Your task to perform on an android device: change the upload size in google photos Image 0: 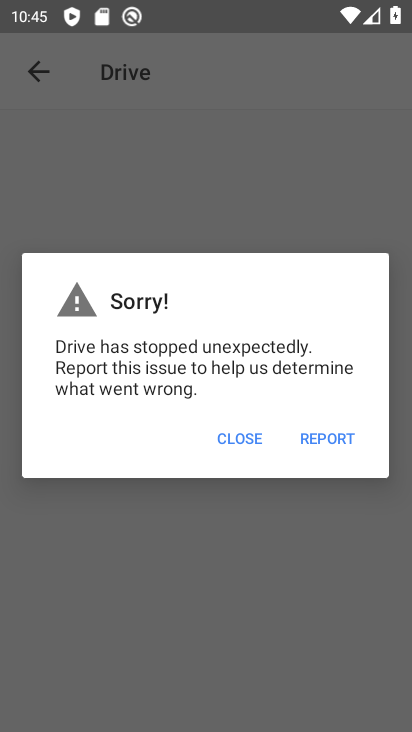
Step 0: press home button
Your task to perform on an android device: change the upload size in google photos Image 1: 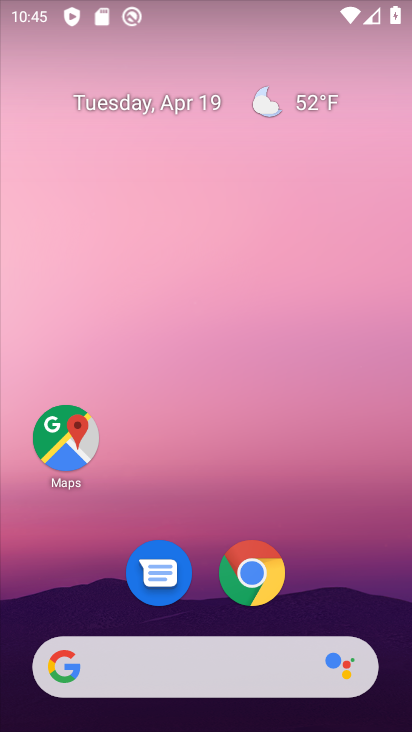
Step 1: drag from (212, 698) to (215, 27)
Your task to perform on an android device: change the upload size in google photos Image 2: 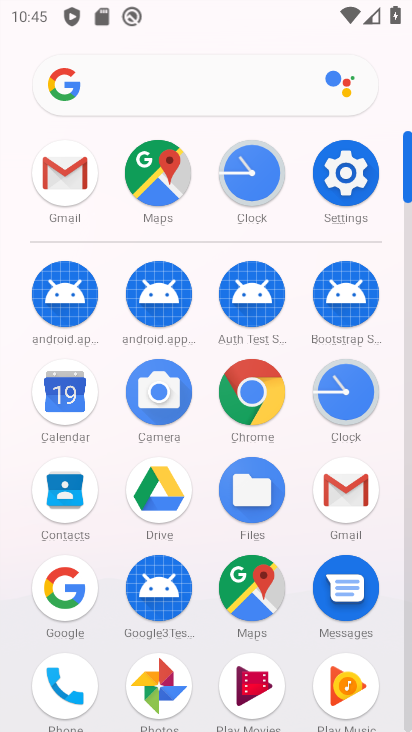
Step 2: click (159, 681)
Your task to perform on an android device: change the upload size in google photos Image 3: 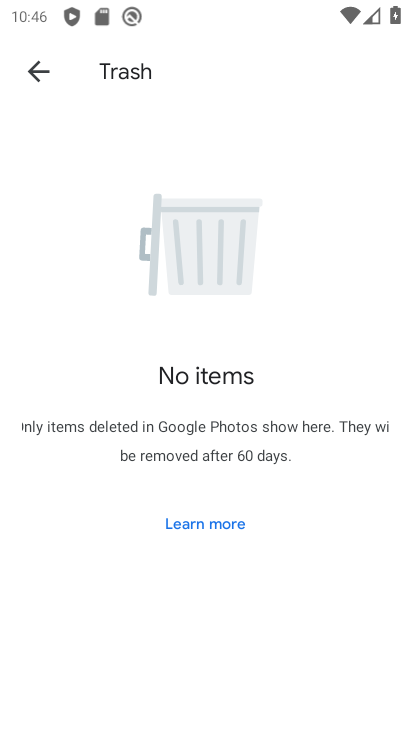
Step 3: click (35, 68)
Your task to perform on an android device: change the upload size in google photos Image 4: 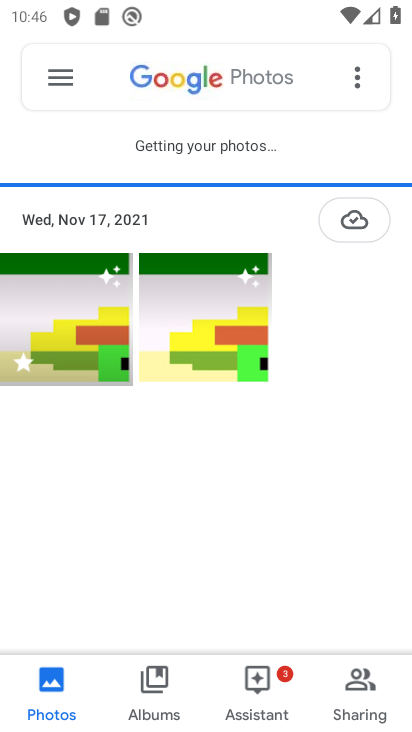
Step 4: click (56, 82)
Your task to perform on an android device: change the upload size in google photos Image 5: 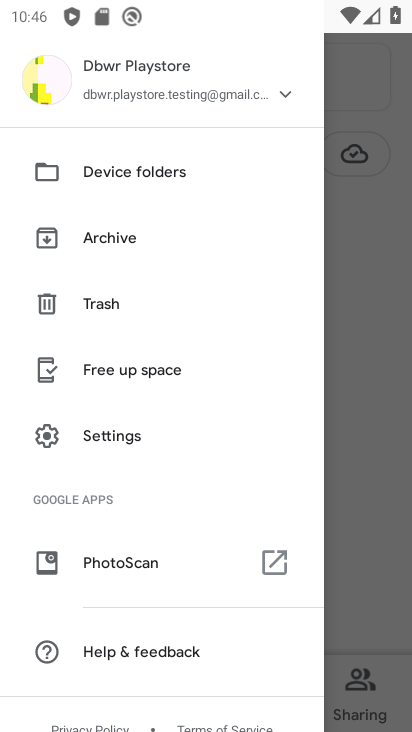
Step 5: click (119, 432)
Your task to perform on an android device: change the upload size in google photos Image 6: 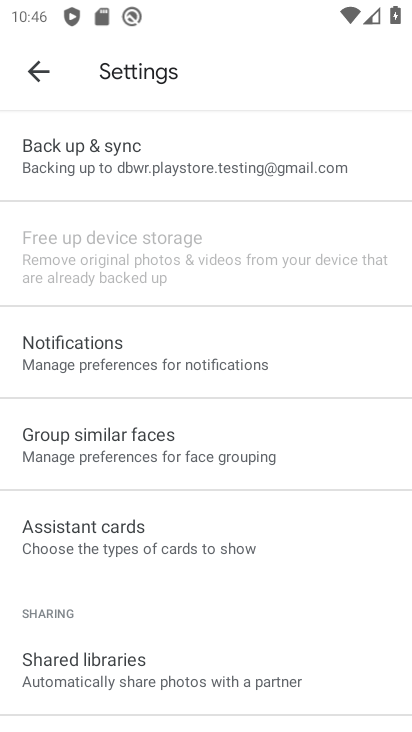
Step 6: drag from (152, 625) to (161, 355)
Your task to perform on an android device: change the upload size in google photos Image 7: 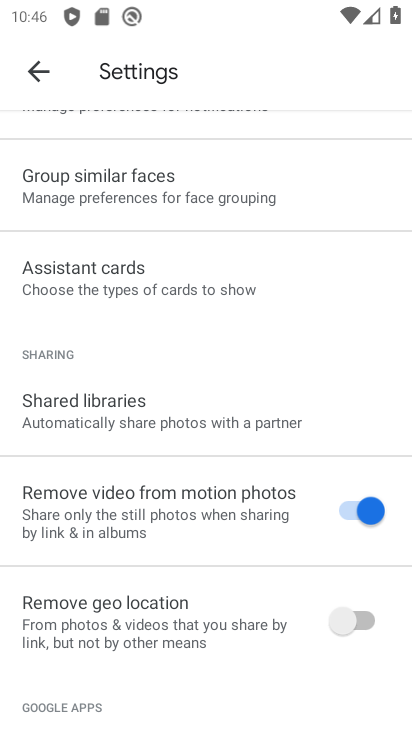
Step 7: drag from (250, 127) to (236, 531)
Your task to perform on an android device: change the upload size in google photos Image 8: 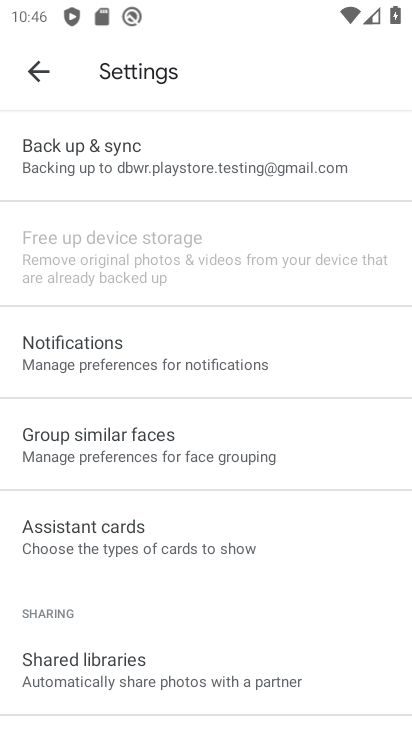
Step 8: click (74, 155)
Your task to perform on an android device: change the upload size in google photos Image 9: 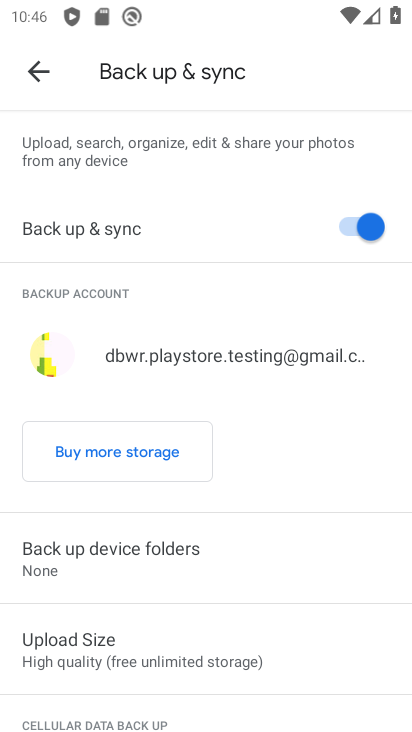
Step 9: drag from (274, 657) to (284, 355)
Your task to perform on an android device: change the upload size in google photos Image 10: 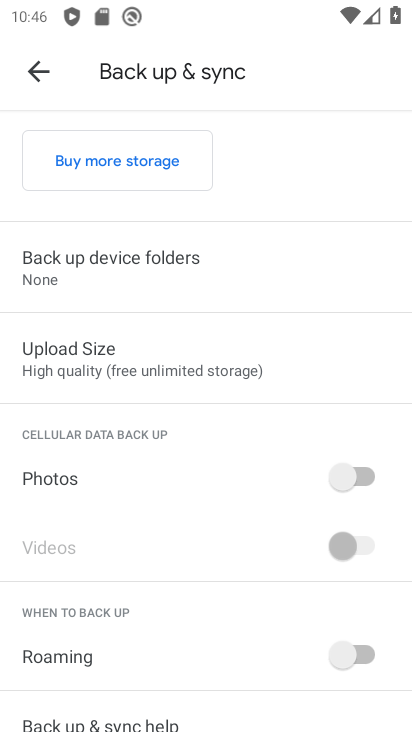
Step 10: click (155, 364)
Your task to perform on an android device: change the upload size in google photos Image 11: 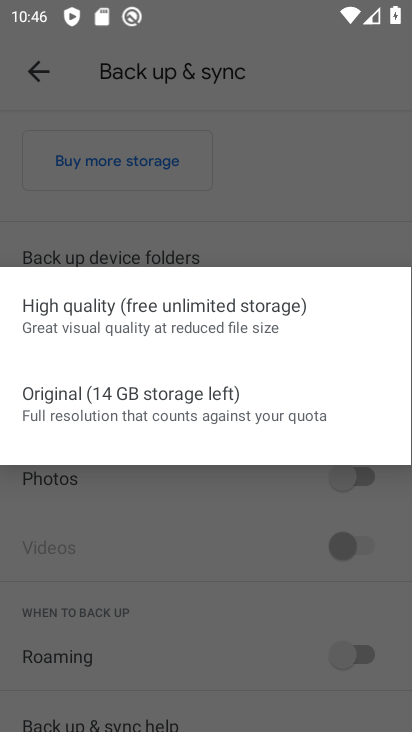
Step 11: click (156, 399)
Your task to perform on an android device: change the upload size in google photos Image 12: 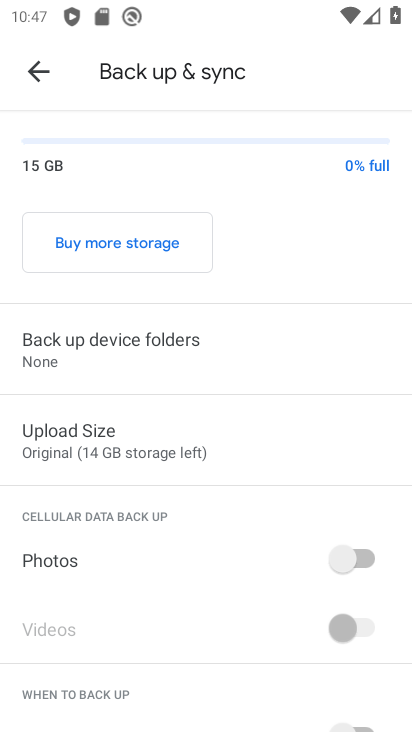
Step 12: task complete